Your task to perform on an android device: Open the Play Movies app and select the watchlist tab. Image 0: 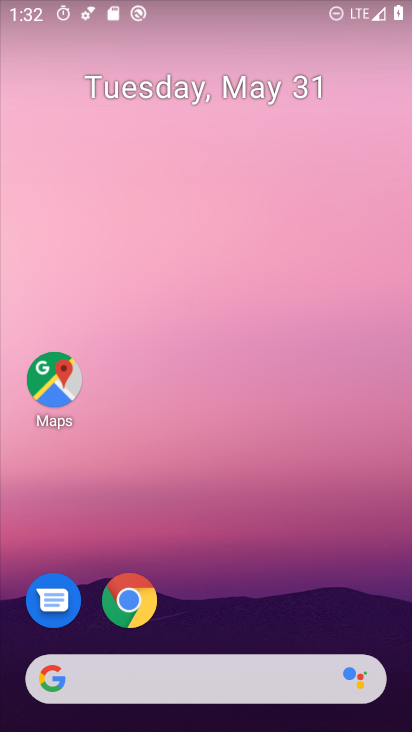
Step 0: drag from (216, 706) to (222, 1)
Your task to perform on an android device: Open the Play Movies app and select the watchlist tab. Image 1: 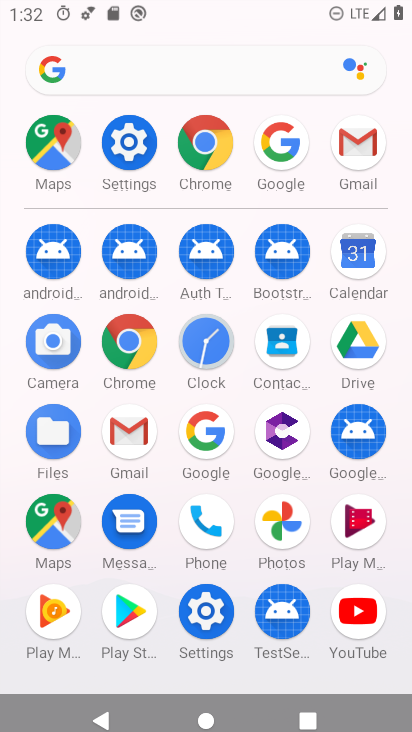
Step 1: click (357, 518)
Your task to perform on an android device: Open the Play Movies app and select the watchlist tab. Image 2: 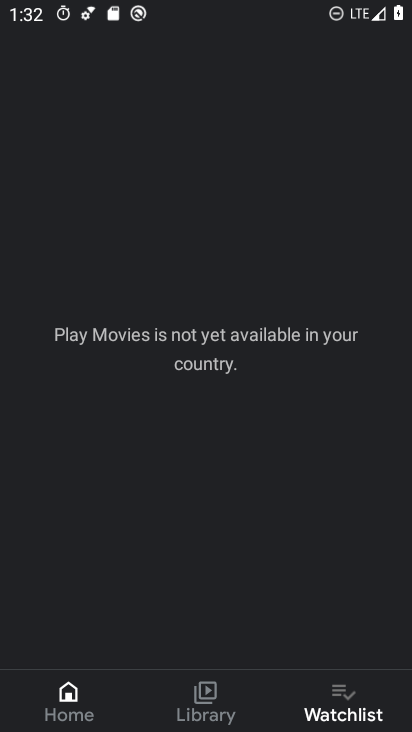
Step 2: task complete